Your task to perform on an android device: move an email to a new category in the gmail app Image 0: 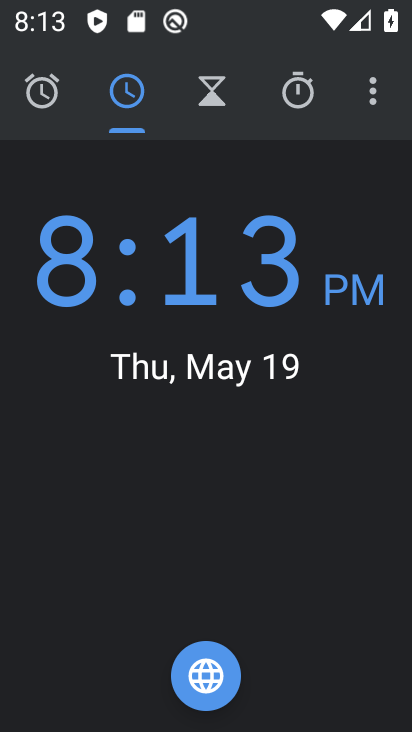
Step 0: press home button
Your task to perform on an android device: move an email to a new category in the gmail app Image 1: 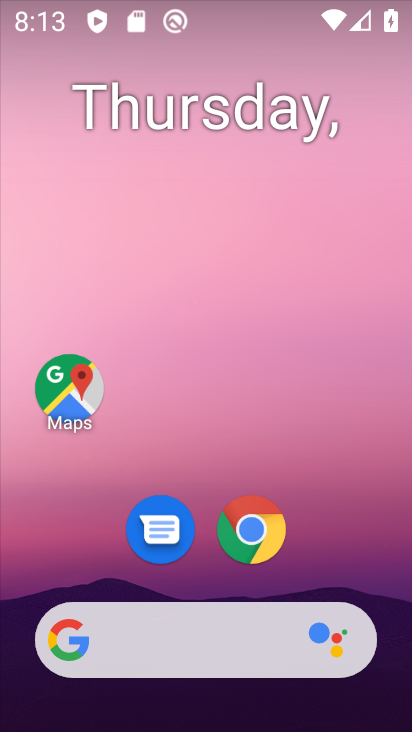
Step 1: drag from (189, 632) to (297, 100)
Your task to perform on an android device: move an email to a new category in the gmail app Image 2: 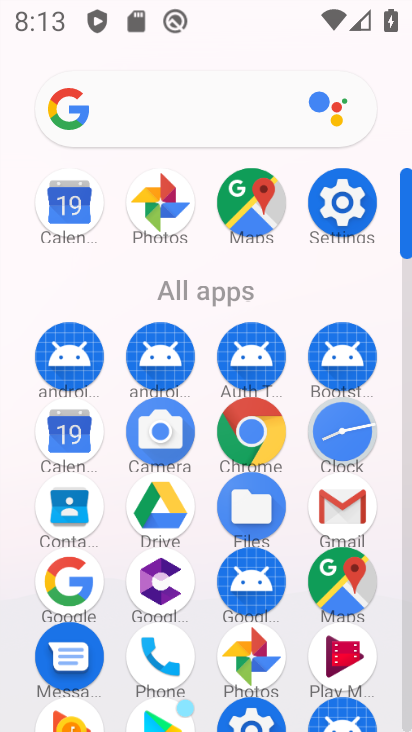
Step 2: click (349, 523)
Your task to perform on an android device: move an email to a new category in the gmail app Image 3: 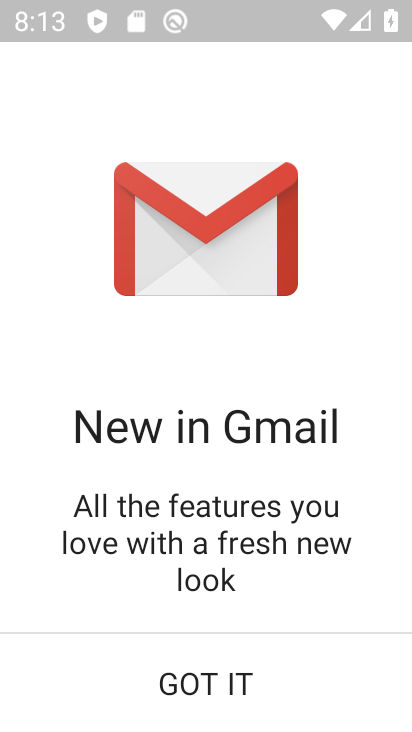
Step 3: click (202, 672)
Your task to perform on an android device: move an email to a new category in the gmail app Image 4: 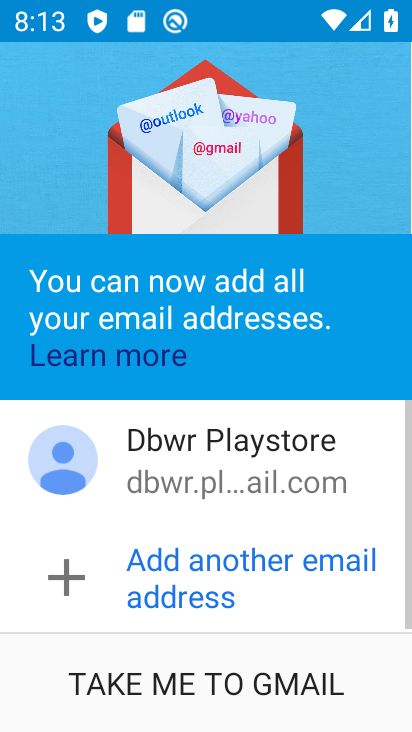
Step 4: click (199, 694)
Your task to perform on an android device: move an email to a new category in the gmail app Image 5: 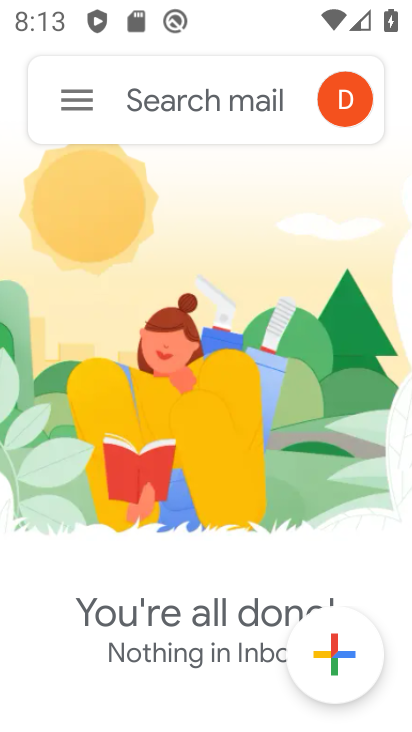
Step 5: task complete